Your task to perform on an android device: find snoozed emails in the gmail app Image 0: 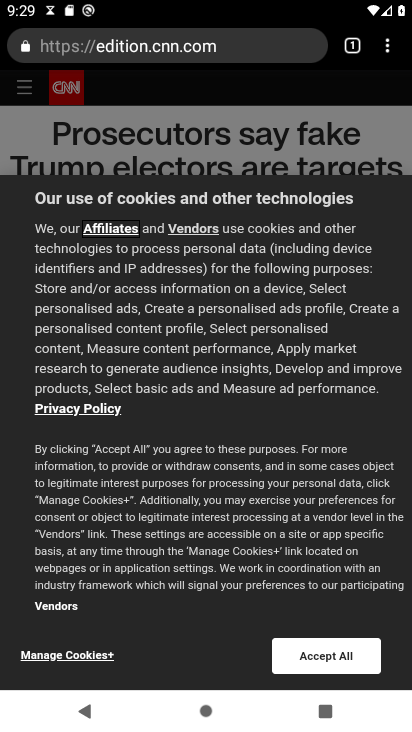
Step 0: press home button
Your task to perform on an android device: find snoozed emails in the gmail app Image 1: 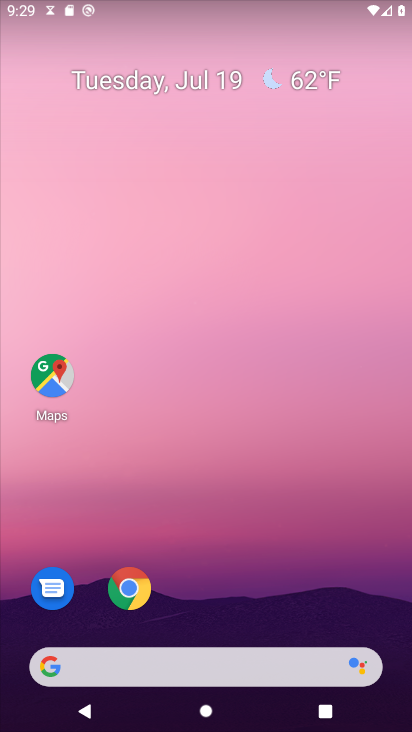
Step 1: drag from (182, 578) to (199, 97)
Your task to perform on an android device: find snoozed emails in the gmail app Image 2: 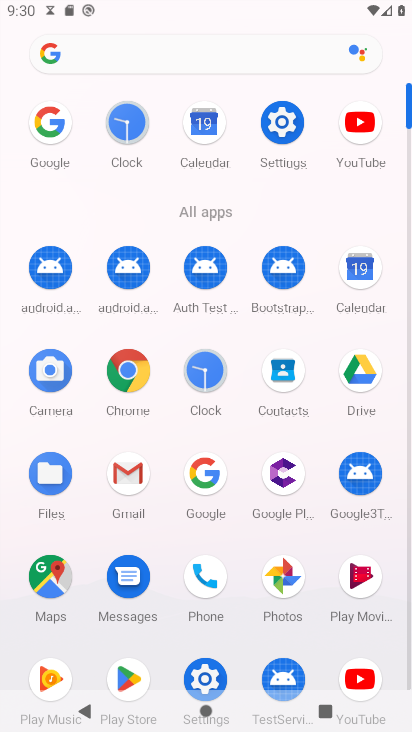
Step 2: click (133, 480)
Your task to perform on an android device: find snoozed emails in the gmail app Image 3: 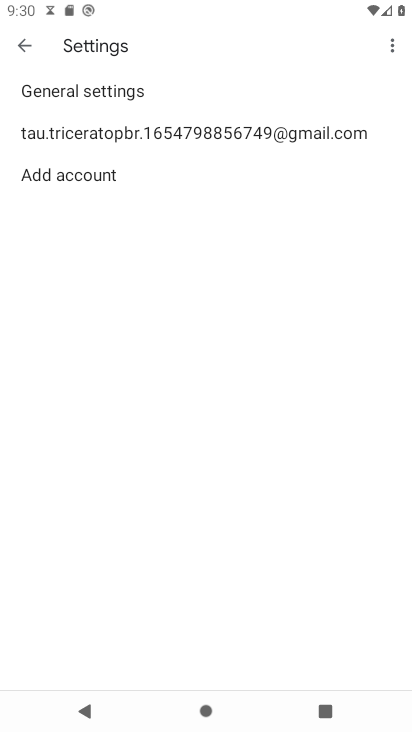
Step 3: click (37, 132)
Your task to perform on an android device: find snoozed emails in the gmail app Image 4: 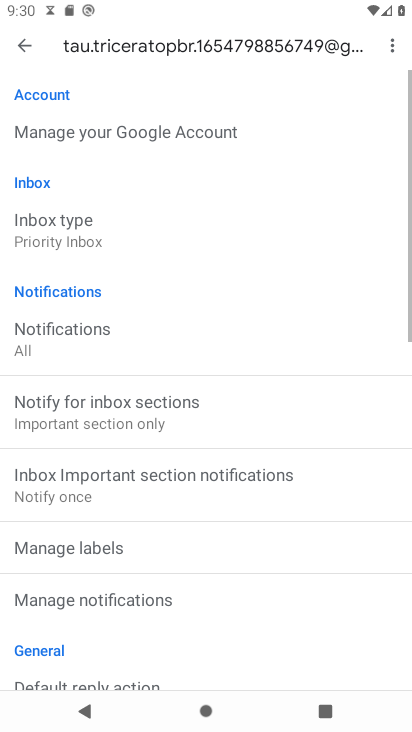
Step 4: click (18, 43)
Your task to perform on an android device: find snoozed emails in the gmail app Image 5: 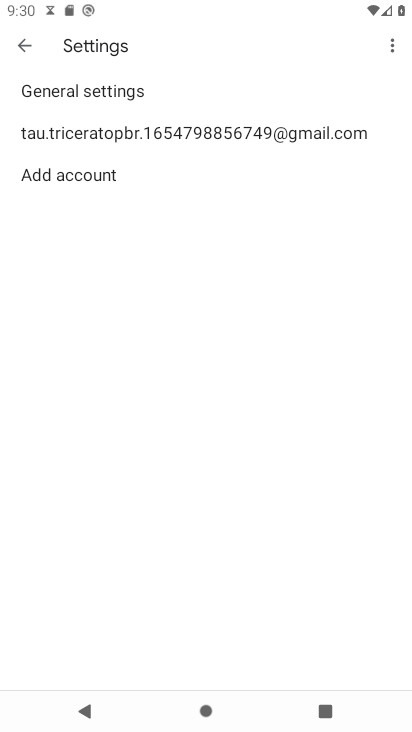
Step 5: click (18, 43)
Your task to perform on an android device: find snoozed emails in the gmail app Image 6: 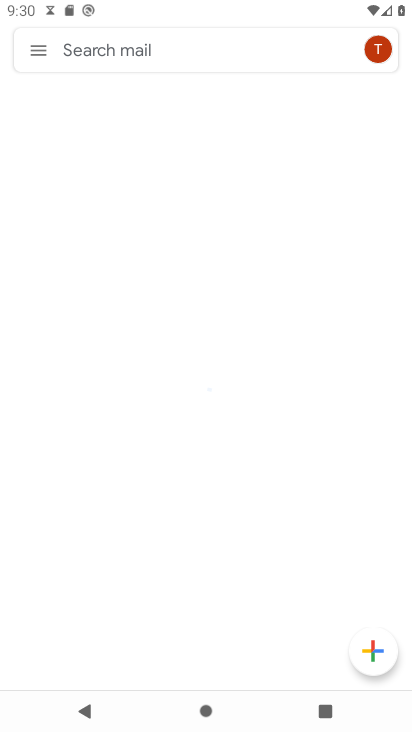
Step 6: click (47, 43)
Your task to perform on an android device: find snoozed emails in the gmail app Image 7: 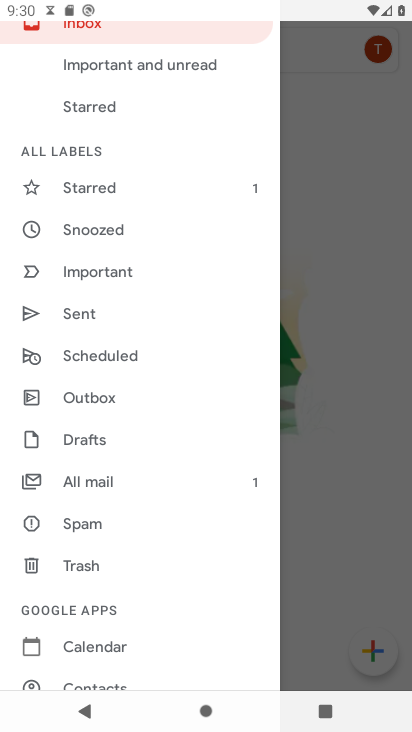
Step 7: click (109, 237)
Your task to perform on an android device: find snoozed emails in the gmail app Image 8: 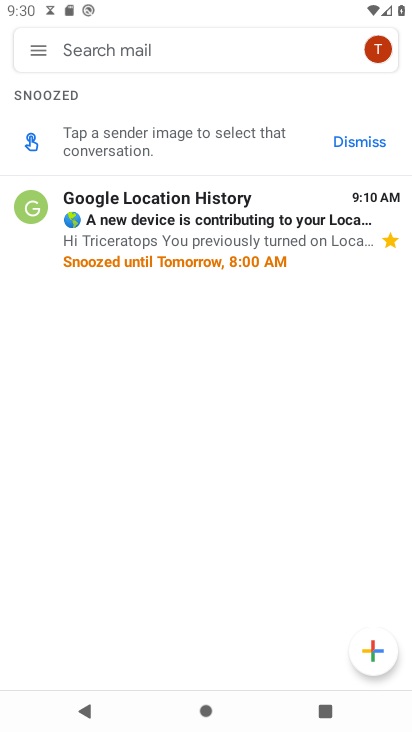
Step 8: task complete